Your task to perform on an android device: Open eBay Image 0: 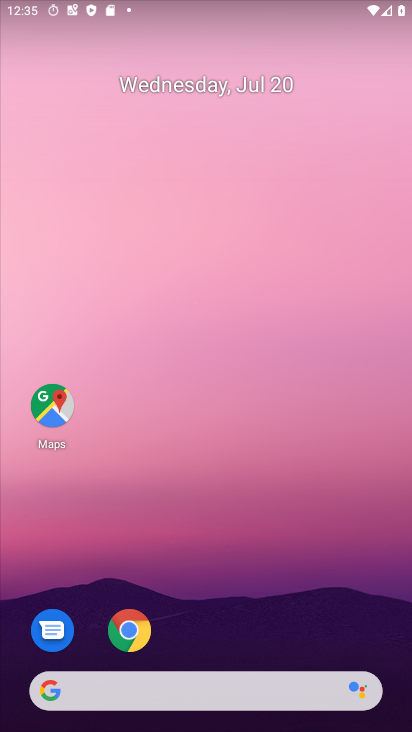
Step 0: click (126, 633)
Your task to perform on an android device: Open eBay Image 1: 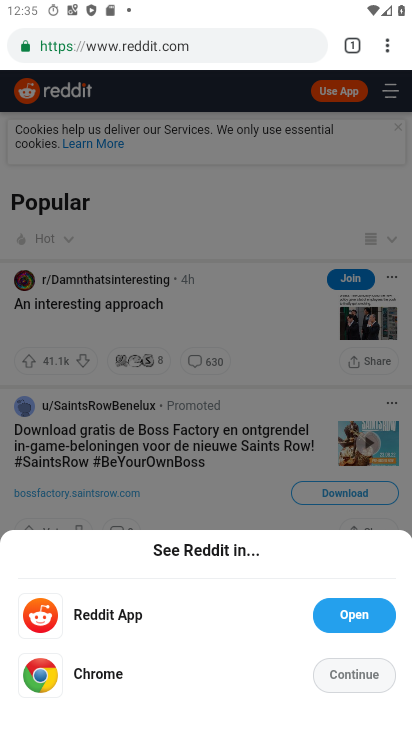
Step 1: click (237, 38)
Your task to perform on an android device: Open eBay Image 2: 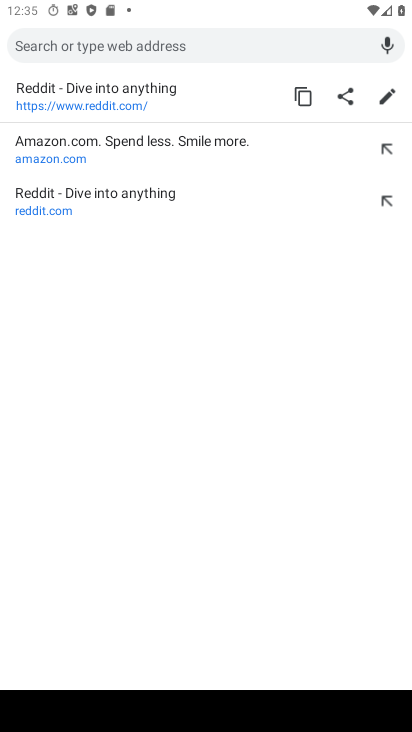
Step 2: type "ebay"
Your task to perform on an android device: Open eBay Image 3: 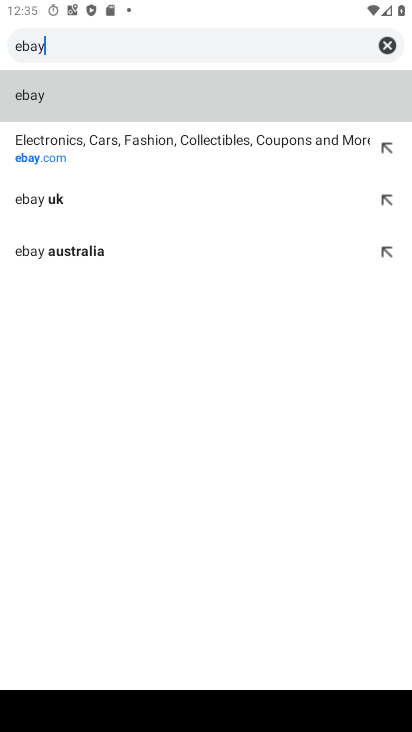
Step 3: click (253, 99)
Your task to perform on an android device: Open eBay Image 4: 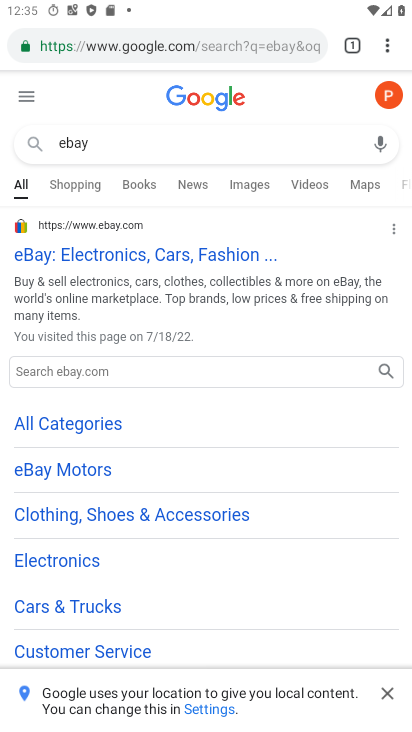
Step 4: click (133, 252)
Your task to perform on an android device: Open eBay Image 5: 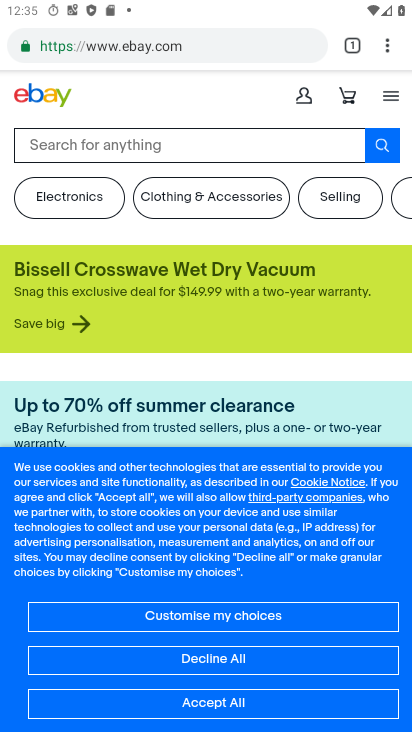
Step 5: task complete